Your task to perform on an android device: clear all cookies in the chrome app Image 0: 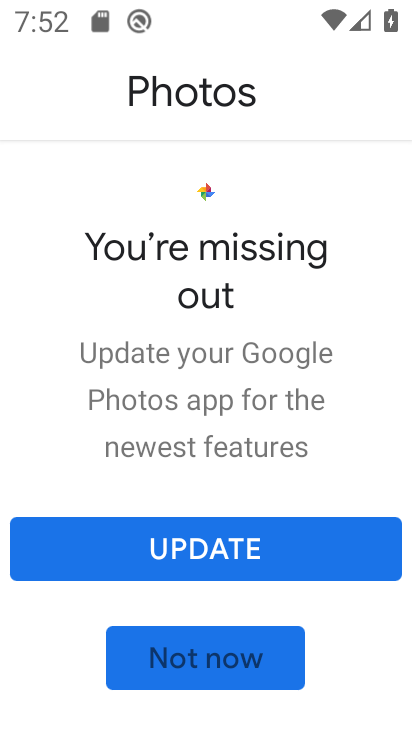
Step 0: press home button
Your task to perform on an android device: clear all cookies in the chrome app Image 1: 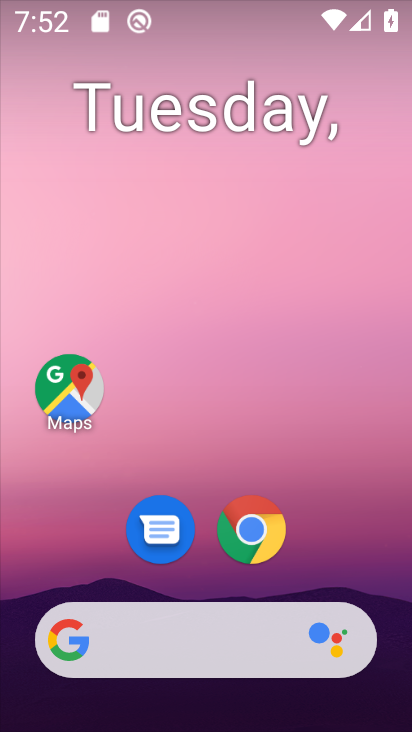
Step 1: click (241, 520)
Your task to perform on an android device: clear all cookies in the chrome app Image 2: 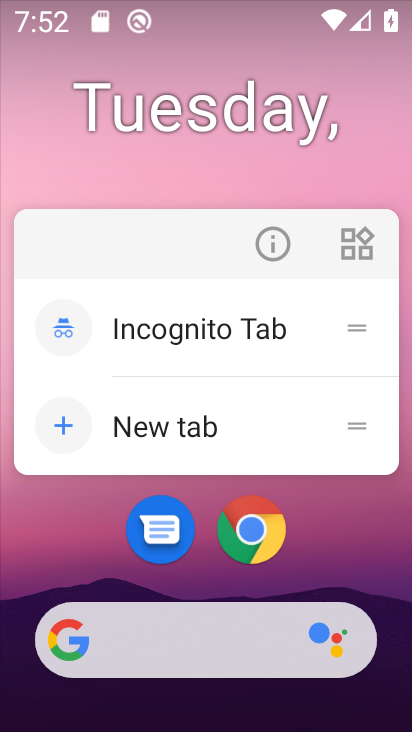
Step 2: click (243, 518)
Your task to perform on an android device: clear all cookies in the chrome app Image 3: 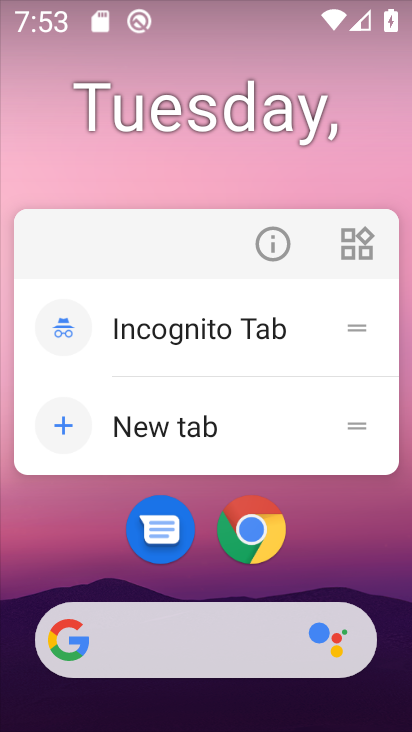
Step 3: click (244, 519)
Your task to perform on an android device: clear all cookies in the chrome app Image 4: 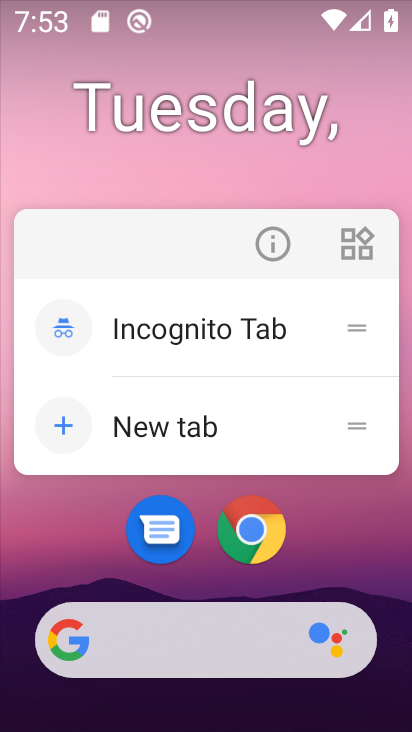
Step 4: click (262, 530)
Your task to perform on an android device: clear all cookies in the chrome app Image 5: 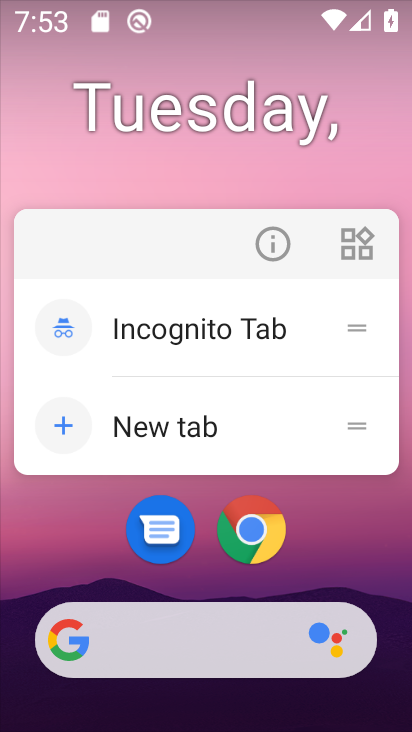
Step 5: click (237, 584)
Your task to perform on an android device: clear all cookies in the chrome app Image 6: 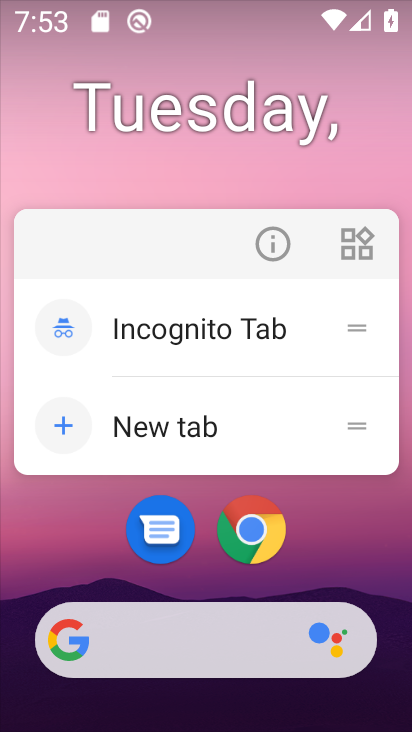
Step 6: drag from (209, 586) to (278, 3)
Your task to perform on an android device: clear all cookies in the chrome app Image 7: 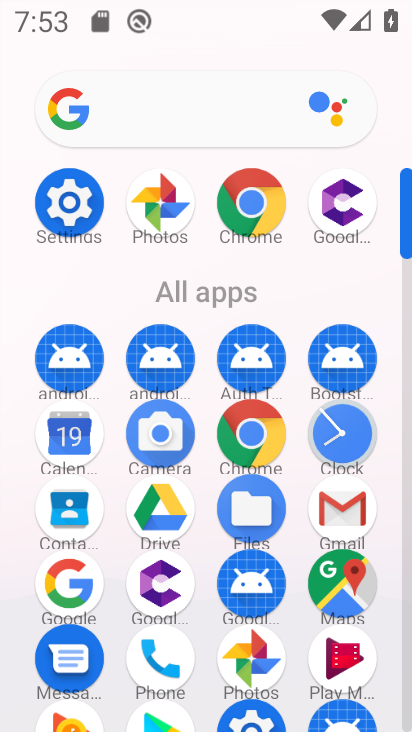
Step 7: click (246, 444)
Your task to perform on an android device: clear all cookies in the chrome app Image 8: 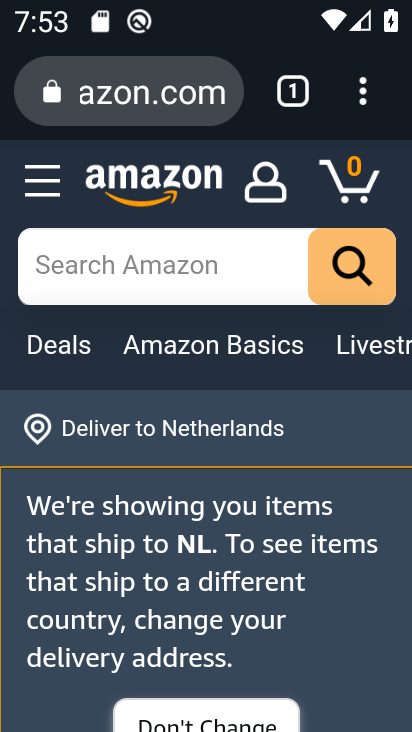
Step 8: click (363, 107)
Your task to perform on an android device: clear all cookies in the chrome app Image 9: 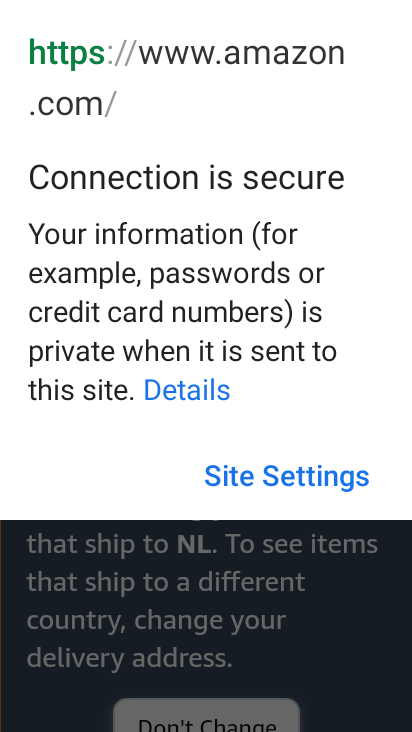
Step 9: click (326, 619)
Your task to perform on an android device: clear all cookies in the chrome app Image 10: 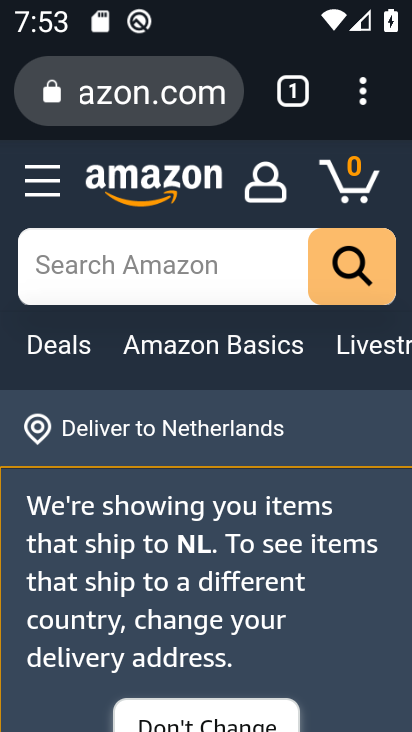
Step 10: click (377, 98)
Your task to perform on an android device: clear all cookies in the chrome app Image 11: 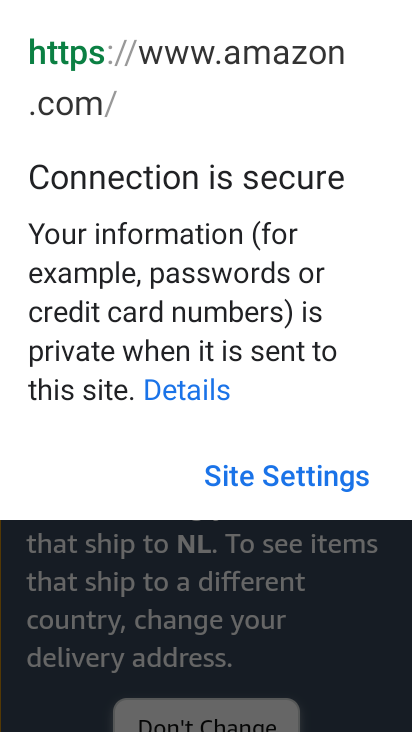
Step 11: click (275, 496)
Your task to perform on an android device: clear all cookies in the chrome app Image 12: 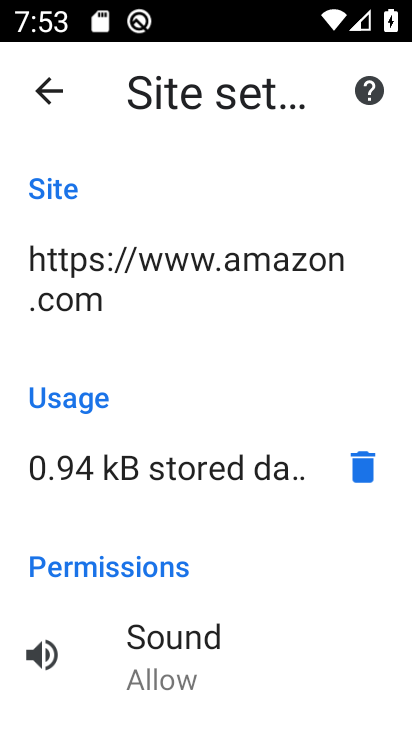
Step 12: click (42, 93)
Your task to perform on an android device: clear all cookies in the chrome app Image 13: 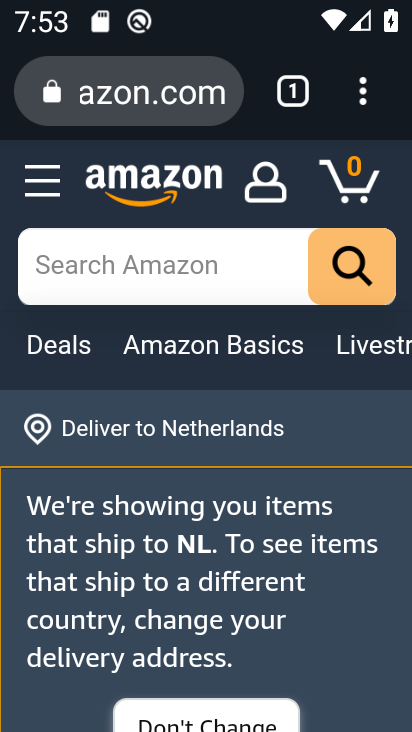
Step 13: click (368, 103)
Your task to perform on an android device: clear all cookies in the chrome app Image 14: 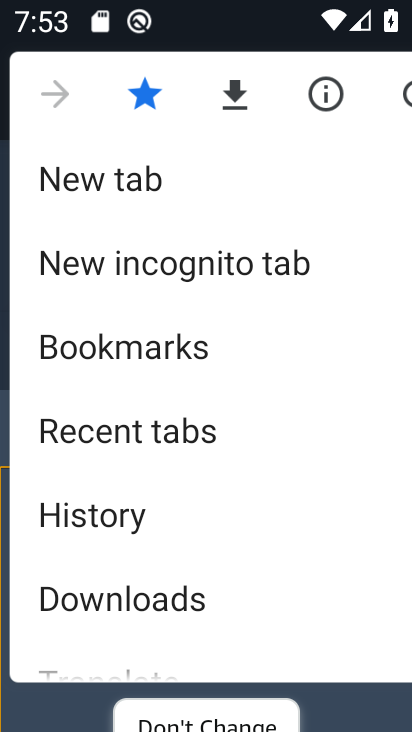
Step 14: click (127, 510)
Your task to perform on an android device: clear all cookies in the chrome app Image 15: 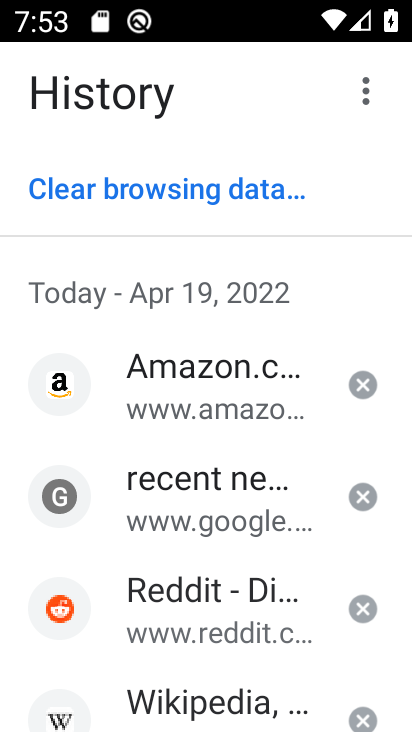
Step 15: click (128, 505)
Your task to perform on an android device: clear all cookies in the chrome app Image 16: 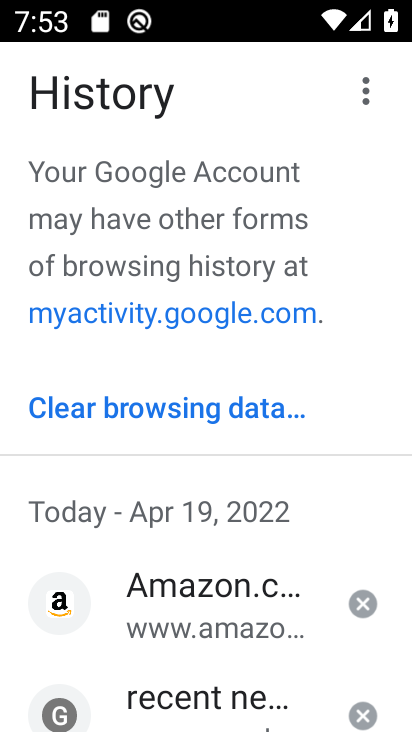
Step 16: click (187, 403)
Your task to perform on an android device: clear all cookies in the chrome app Image 17: 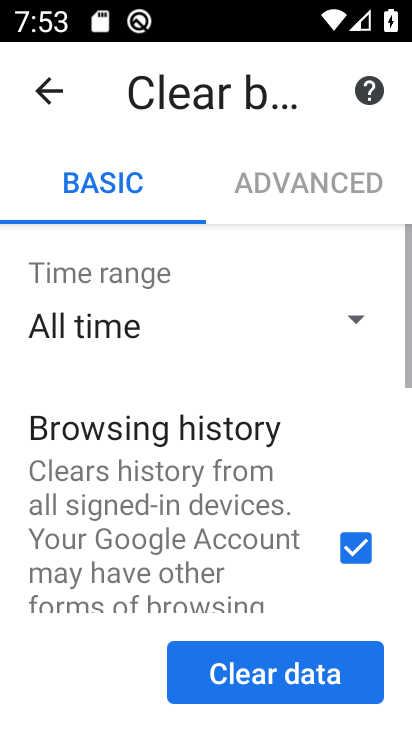
Step 17: drag from (168, 494) to (207, 162)
Your task to perform on an android device: clear all cookies in the chrome app Image 18: 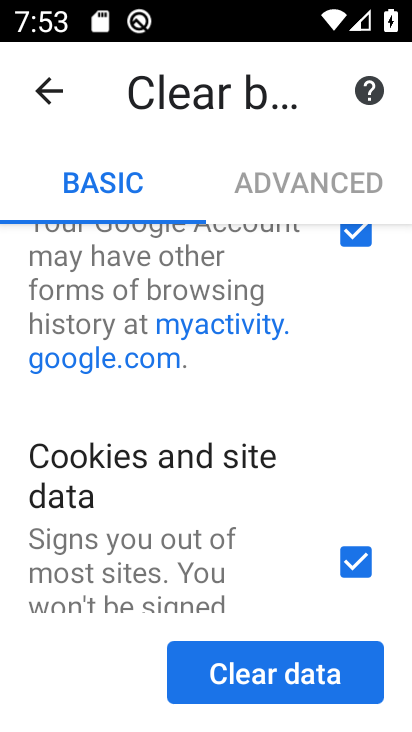
Step 18: click (327, 233)
Your task to perform on an android device: clear all cookies in the chrome app Image 19: 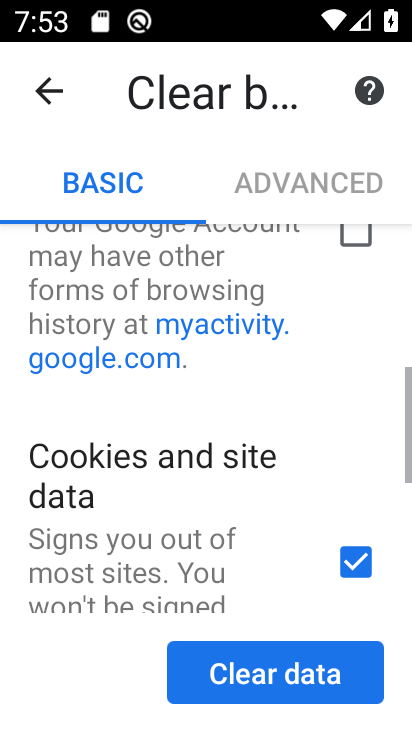
Step 19: drag from (222, 463) to (363, 72)
Your task to perform on an android device: clear all cookies in the chrome app Image 20: 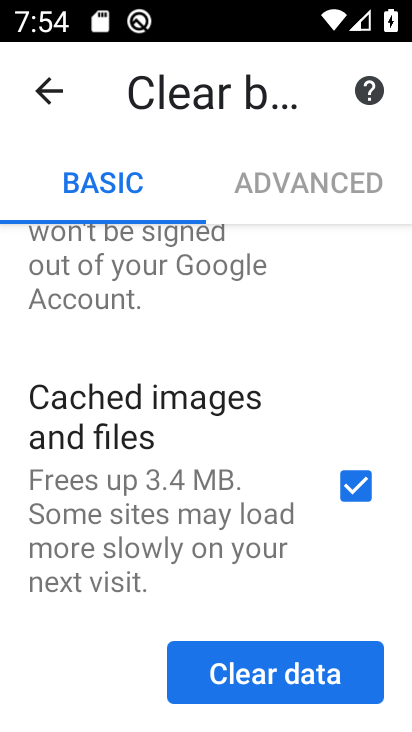
Step 20: click (362, 487)
Your task to perform on an android device: clear all cookies in the chrome app Image 21: 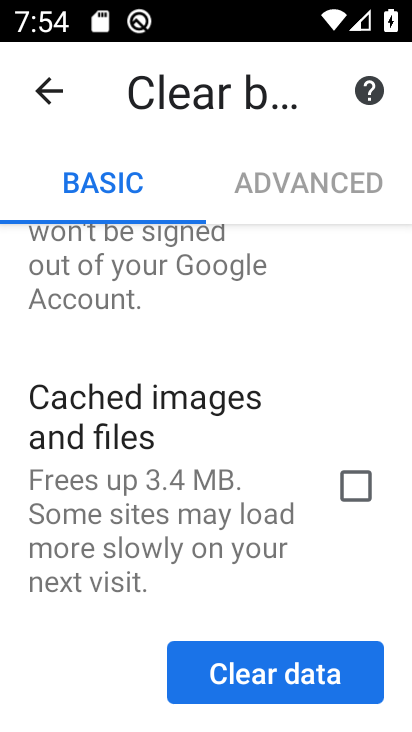
Step 21: click (326, 683)
Your task to perform on an android device: clear all cookies in the chrome app Image 22: 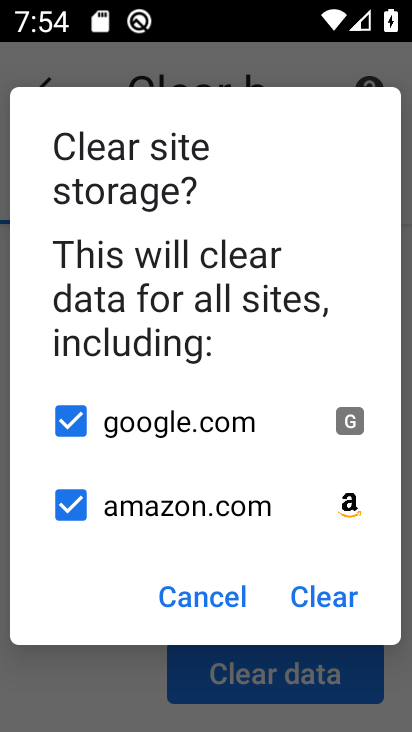
Step 22: click (305, 599)
Your task to perform on an android device: clear all cookies in the chrome app Image 23: 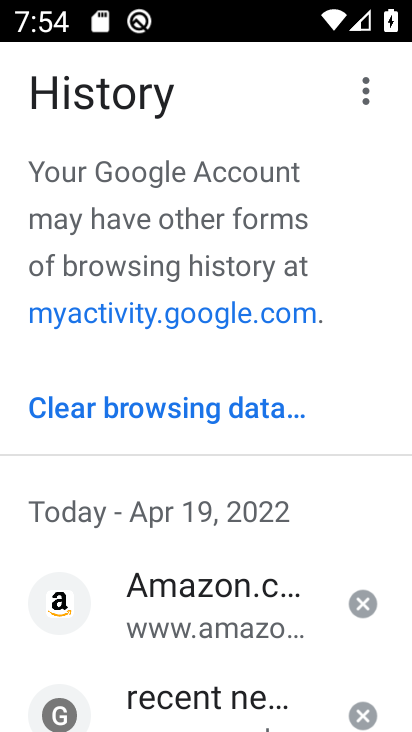
Step 23: task complete